Your task to perform on an android device: Search for pizza restaurants on Maps Image 0: 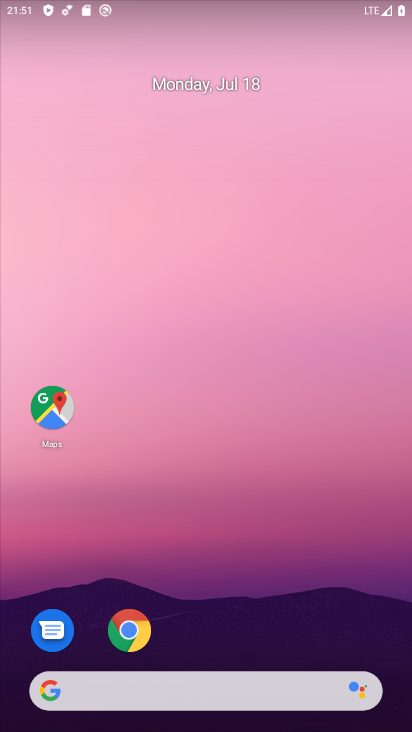
Step 0: drag from (274, 638) to (239, 203)
Your task to perform on an android device: Search for pizza restaurants on Maps Image 1: 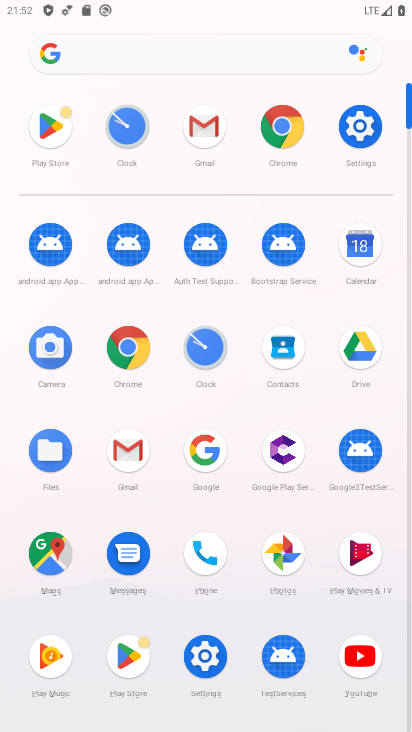
Step 1: click (61, 545)
Your task to perform on an android device: Search for pizza restaurants on Maps Image 2: 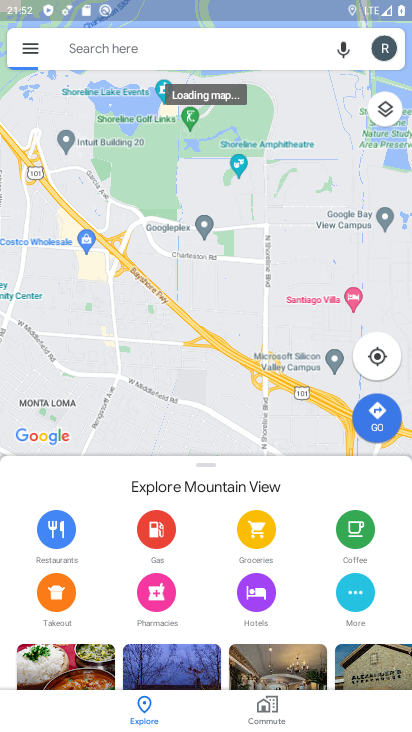
Step 2: click (151, 41)
Your task to perform on an android device: Search for pizza restaurants on Maps Image 3: 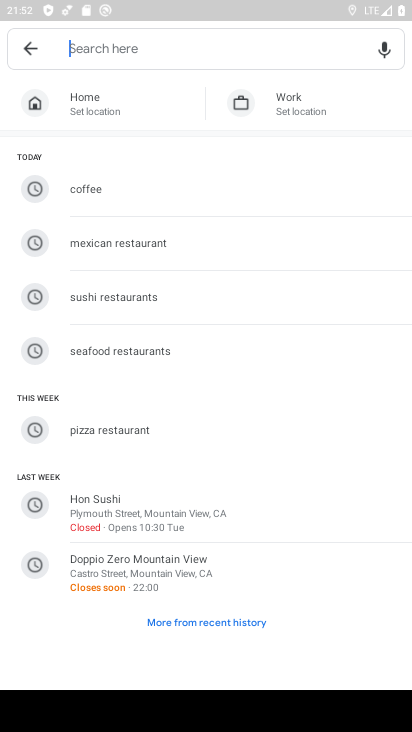
Step 3: click (140, 420)
Your task to perform on an android device: Search for pizza restaurants on Maps Image 4: 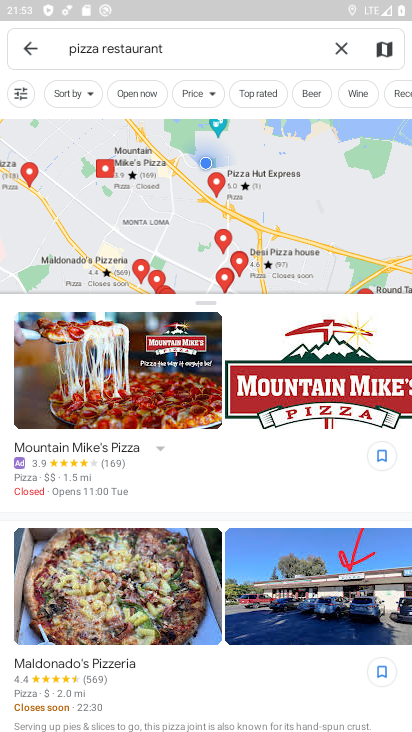
Step 4: task complete